Your task to perform on an android device: change text size in settings app Image 0: 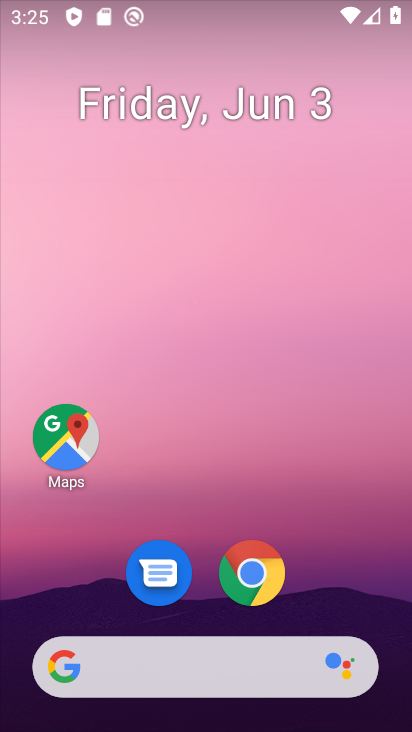
Step 0: drag from (385, 672) to (361, 243)
Your task to perform on an android device: change text size in settings app Image 1: 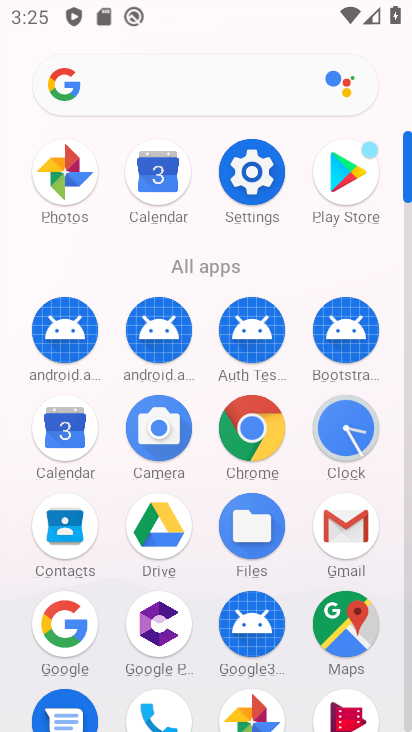
Step 1: click (259, 186)
Your task to perform on an android device: change text size in settings app Image 2: 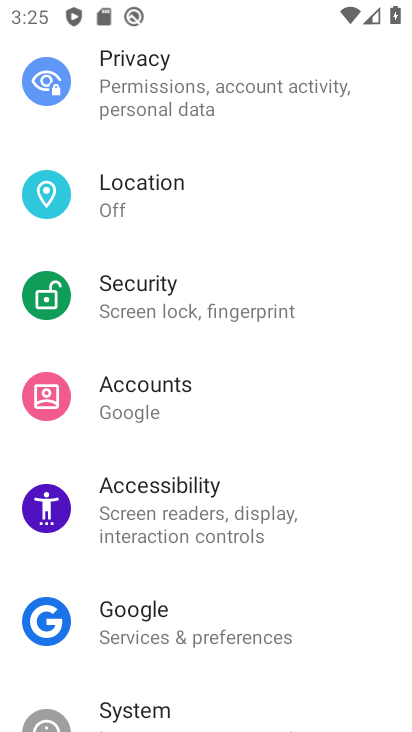
Step 2: drag from (294, 159) to (269, 666)
Your task to perform on an android device: change text size in settings app Image 3: 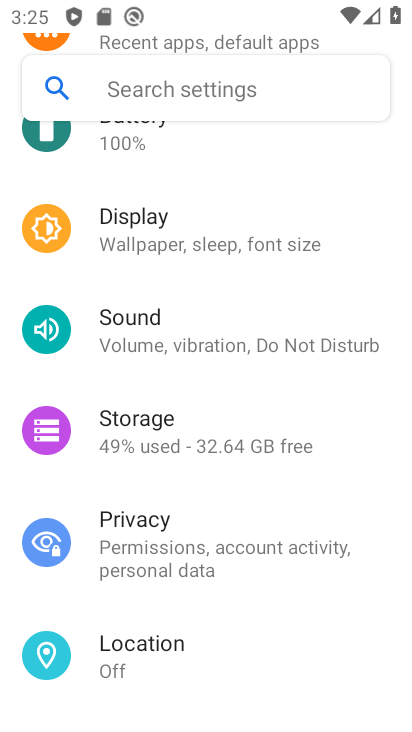
Step 3: click (170, 228)
Your task to perform on an android device: change text size in settings app Image 4: 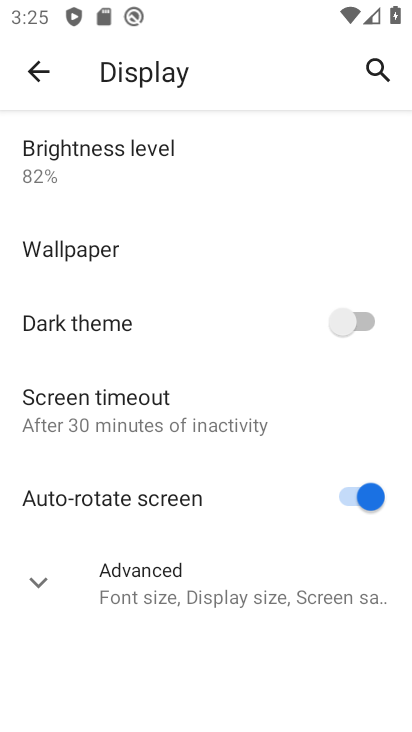
Step 4: click (29, 580)
Your task to perform on an android device: change text size in settings app Image 5: 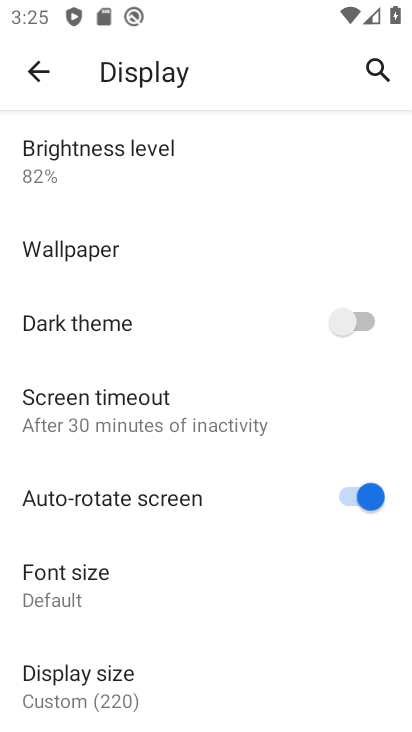
Step 5: click (49, 573)
Your task to perform on an android device: change text size in settings app Image 6: 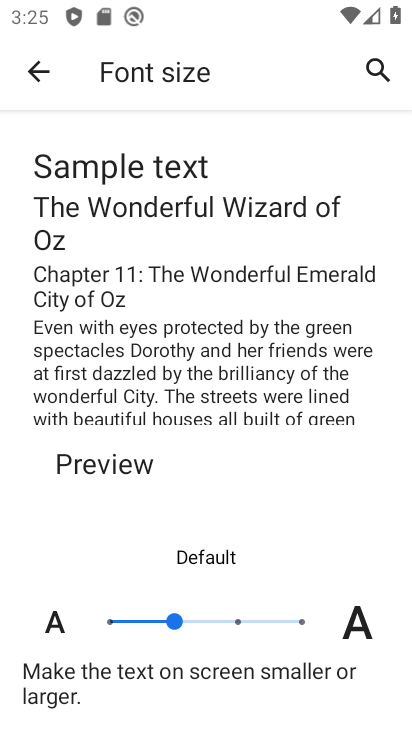
Step 6: click (231, 616)
Your task to perform on an android device: change text size in settings app Image 7: 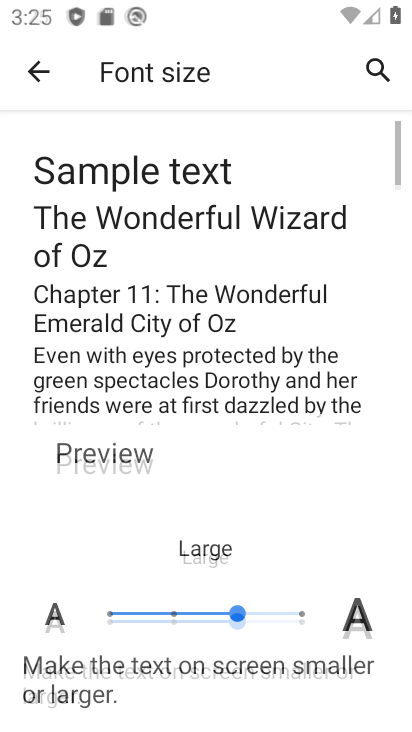
Step 7: click (113, 626)
Your task to perform on an android device: change text size in settings app Image 8: 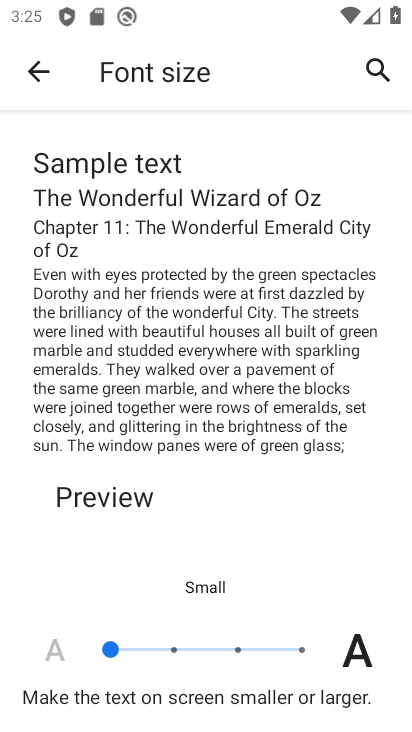
Step 8: task complete